Your task to perform on an android device: change the clock display to show seconds Image 0: 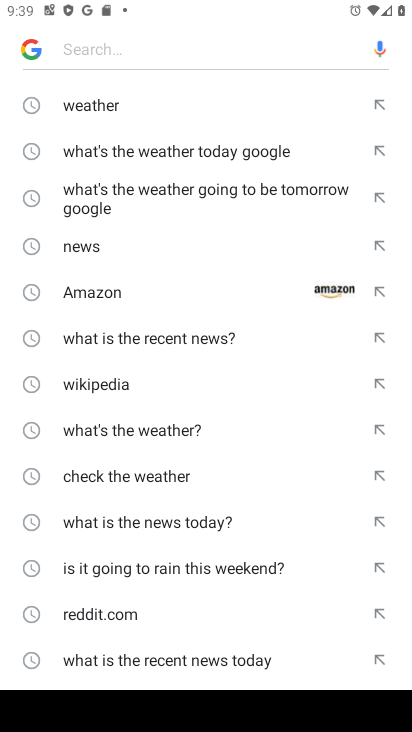
Step 0: press home button
Your task to perform on an android device: change the clock display to show seconds Image 1: 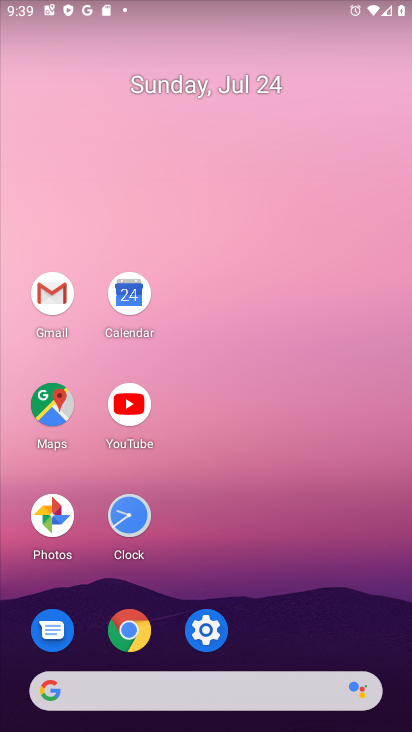
Step 1: click (132, 523)
Your task to perform on an android device: change the clock display to show seconds Image 2: 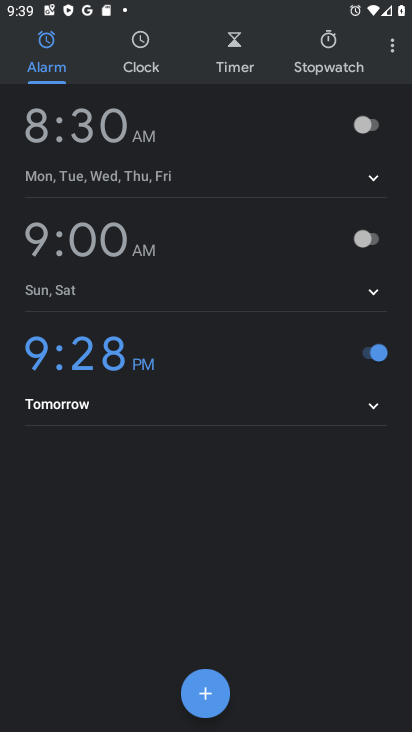
Step 2: click (389, 40)
Your task to perform on an android device: change the clock display to show seconds Image 3: 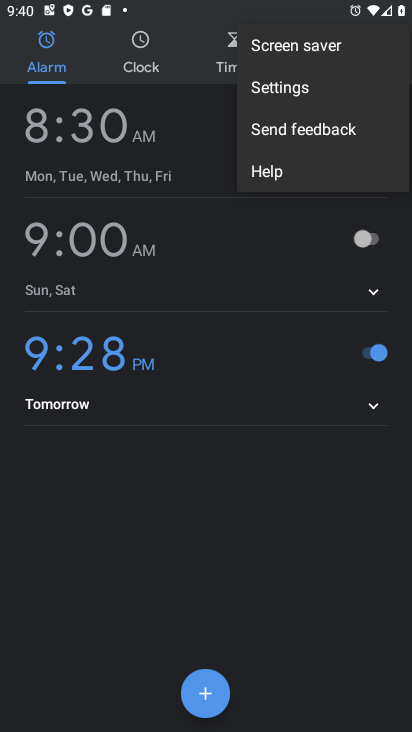
Step 3: click (297, 93)
Your task to perform on an android device: change the clock display to show seconds Image 4: 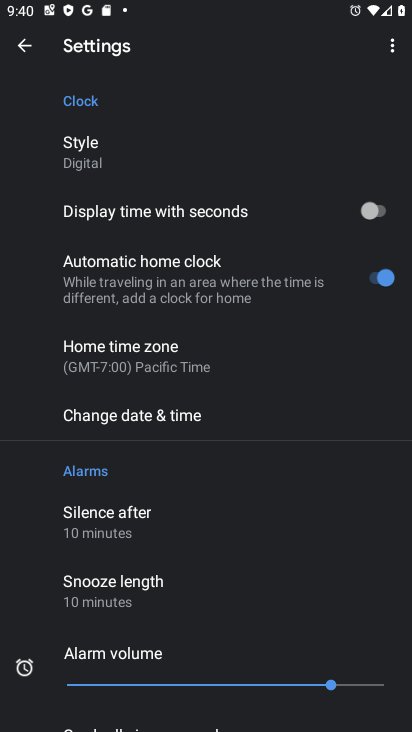
Step 4: click (364, 218)
Your task to perform on an android device: change the clock display to show seconds Image 5: 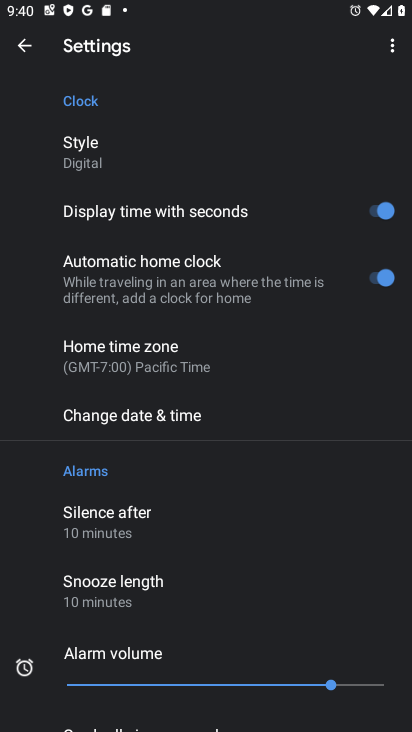
Step 5: task complete